Your task to perform on an android device: Find coffee shops on Maps Image 0: 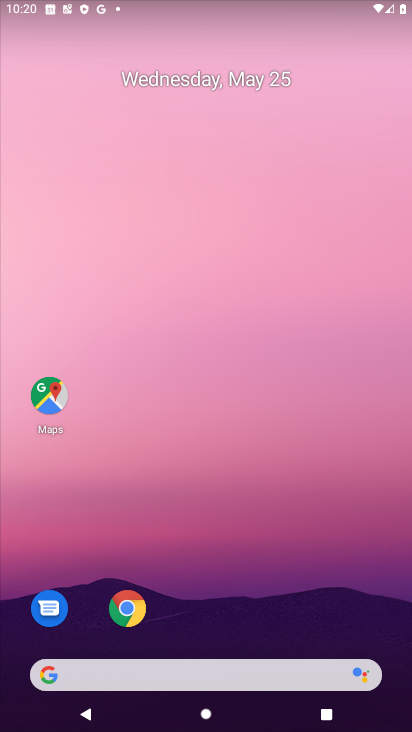
Step 0: click (52, 398)
Your task to perform on an android device: Find coffee shops on Maps Image 1: 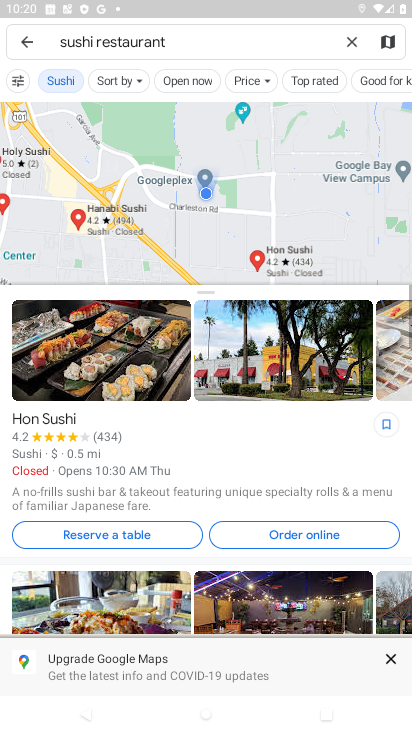
Step 1: click (343, 46)
Your task to perform on an android device: Find coffee shops on Maps Image 2: 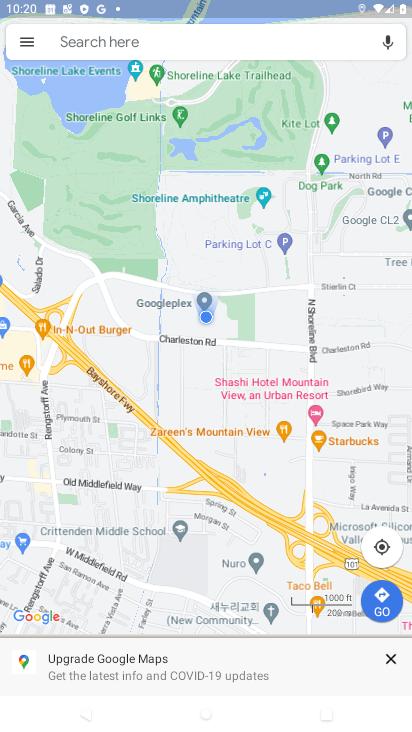
Step 2: click (89, 44)
Your task to perform on an android device: Find coffee shops on Maps Image 3: 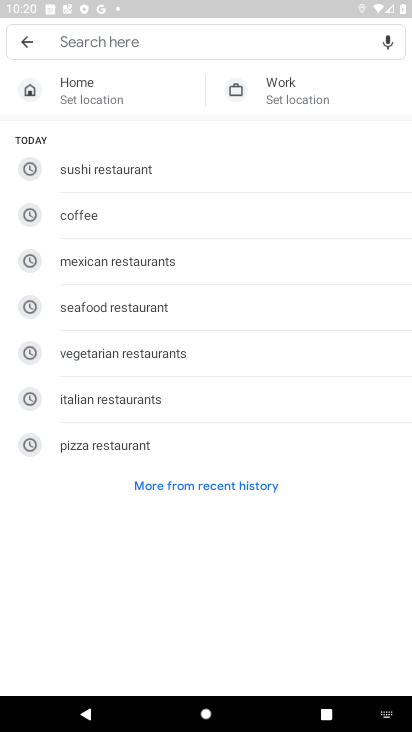
Step 3: type "coffee shop"
Your task to perform on an android device: Find coffee shops on Maps Image 4: 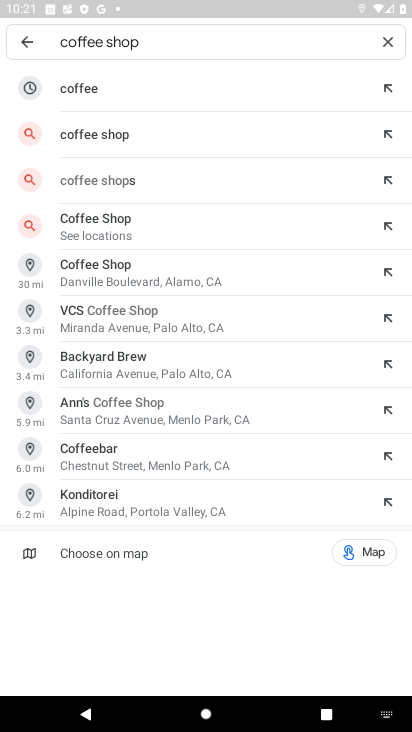
Step 4: click (87, 135)
Your task to perform on an android device: Find coffee shops on Maps Image 5: 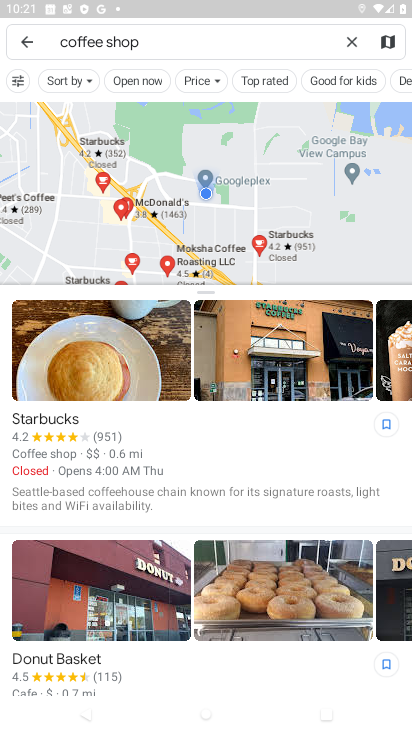
Step 5: task complete